Your task to perform on an android device: Open settings on Google Maps Image 0: 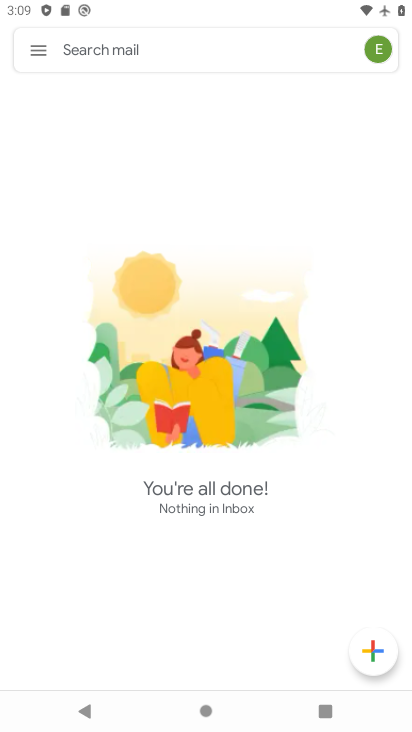
Step 0: press home button
Your task to perform on an android device: Open settings on Google Maps Image 1: 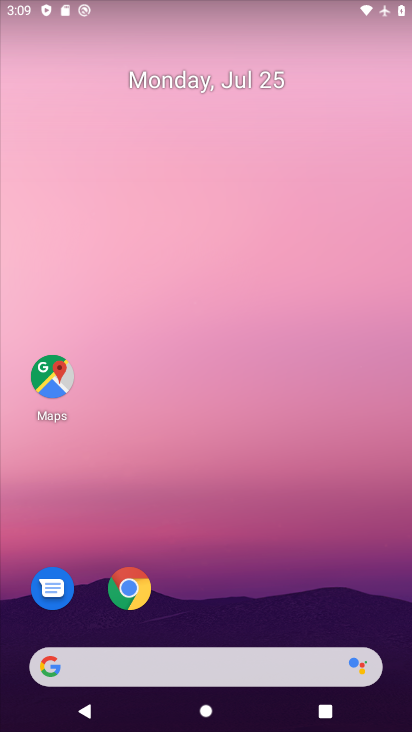
Step 1: drag from (233, 695) to (237, 249)
Your task to perform on an android device: Open settings on Google Maps Image 2: 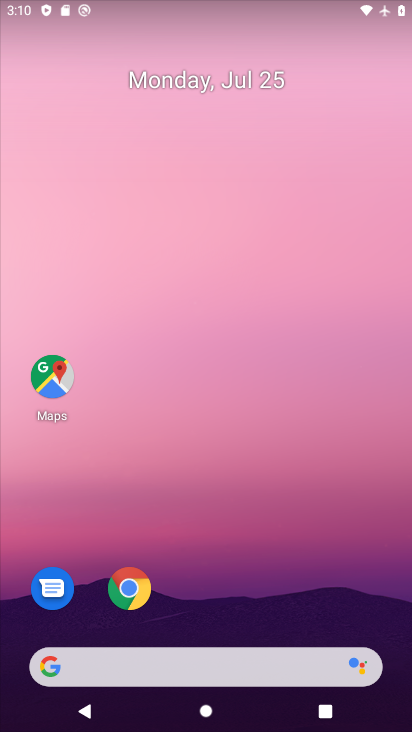
Step 2: drag from (220, 727) to (238, 36)
Your task to perform on an android device: Open settings on Google Maps Image 3: 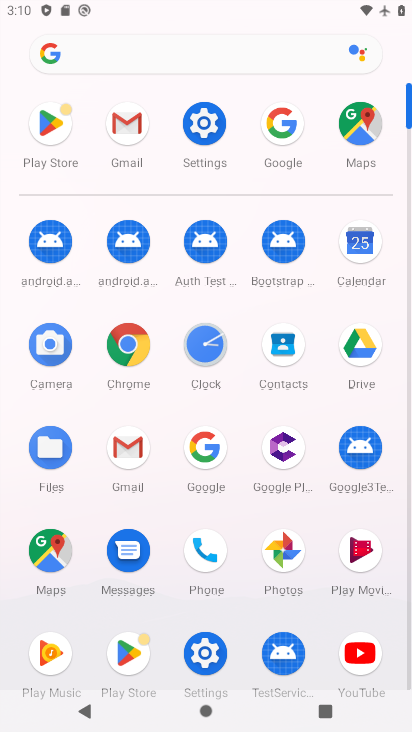
Step 3: click (57, 547)
Your task to perform on an android device: Open settings on Google Maps Image 4: 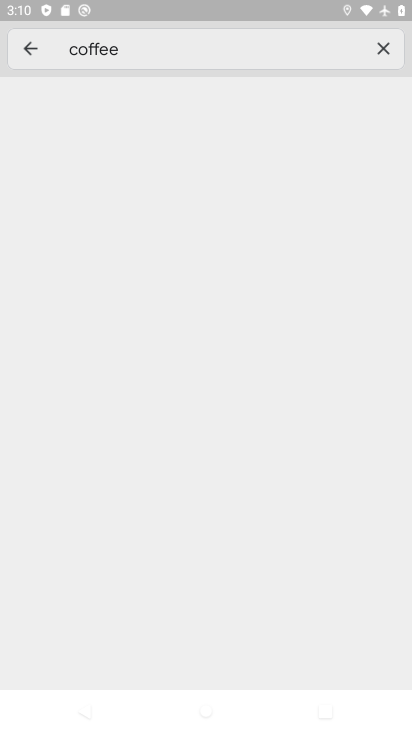
Step 4: click (33, 49)
Your task to perform on an android device: Open settings on Google Maps Image 5: 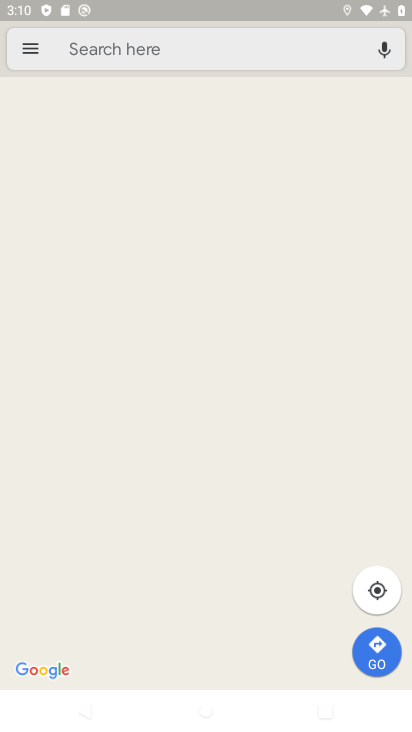
Step 5: click (36, 45)
Your task to perform on an android device: Open settings on Google Maps Image 6: 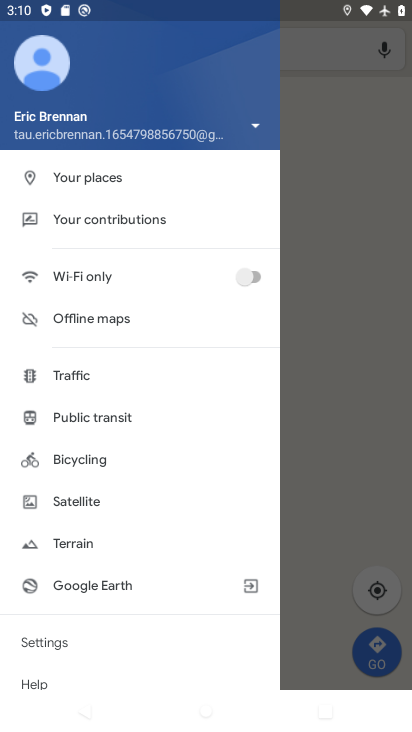
Step 6: click (46, 643)
Your task to perform on an android device: Open settings on Google Maps Image 7: 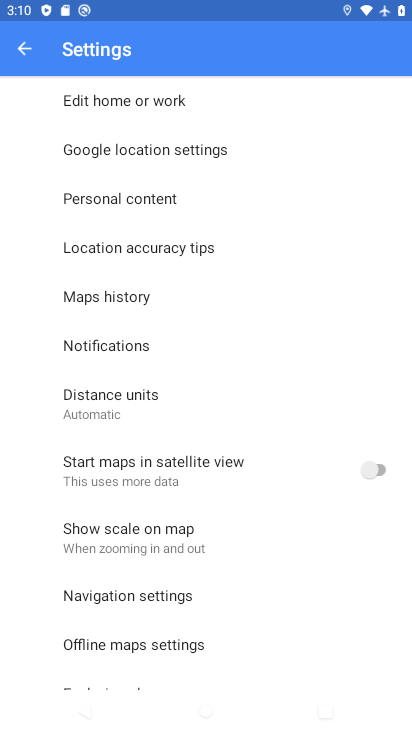
Step 7: task complete